Your task to perform on an android device: Go to Yahoo.com Image 0: 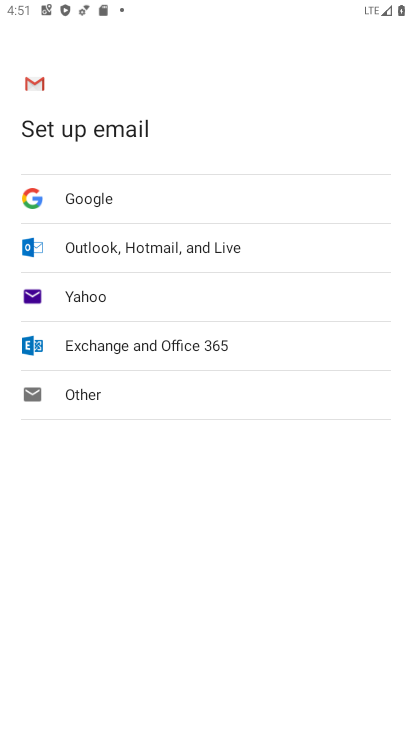
Step 0: press home button
Your task to perform on an android device: Go to Yahoo.com Image 1: 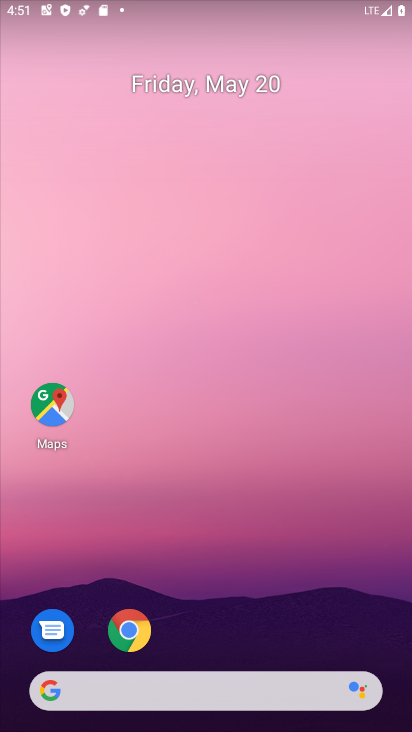
Step 1: click (112, 686)
Your task to perform on an android device: Go to Yahoo.com Image 2: 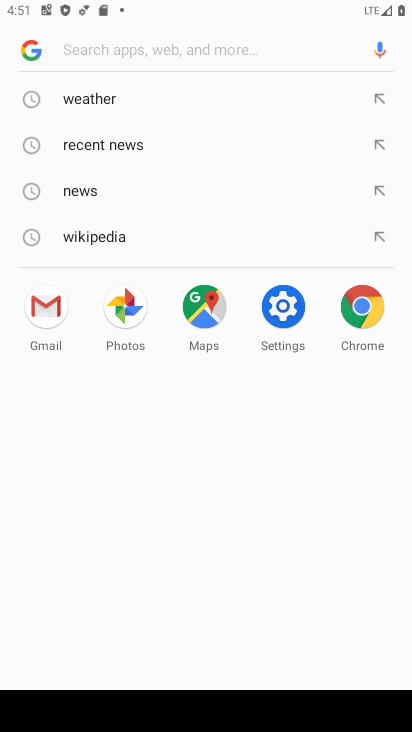
Step 2: type "yahoo.com"
Your task to perform on an android device: Go to Yahoo.com Image 3: 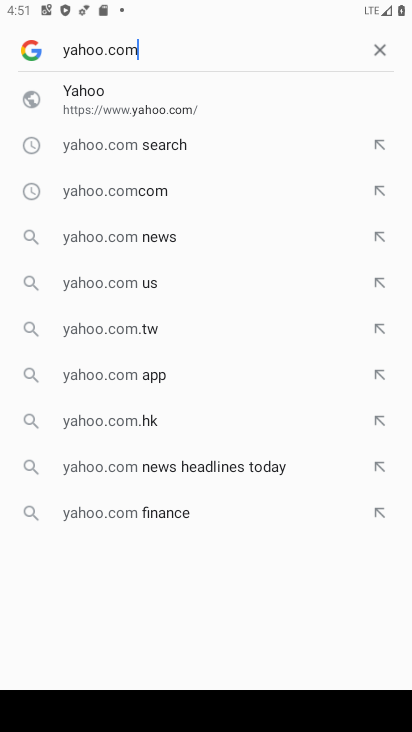
Step 3: click (71, 91)
Your task to perform on an android device: Go to Yahoo.com Image 4: 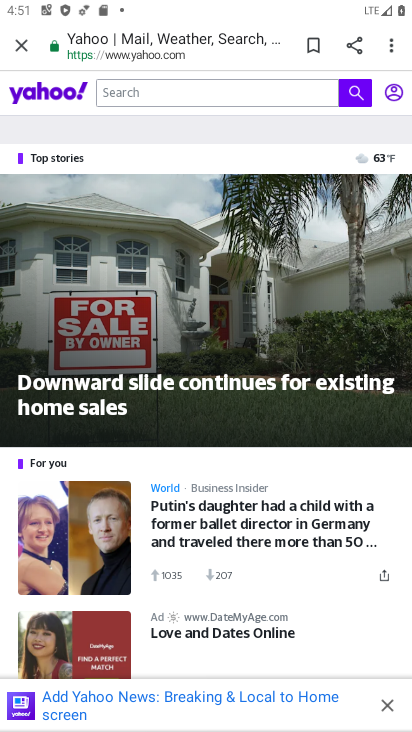
Step 4: task complete